Your task to perform on an android device: Go to Google maps Image 0: 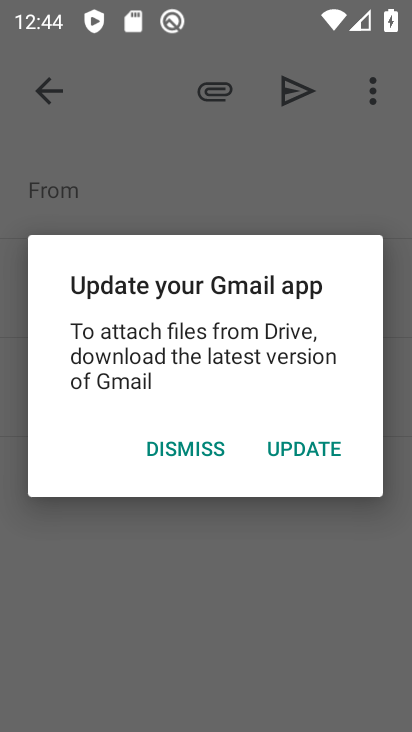
Step 0: press home button
Your task to perform on an android device: Go to Google maps Image 1: 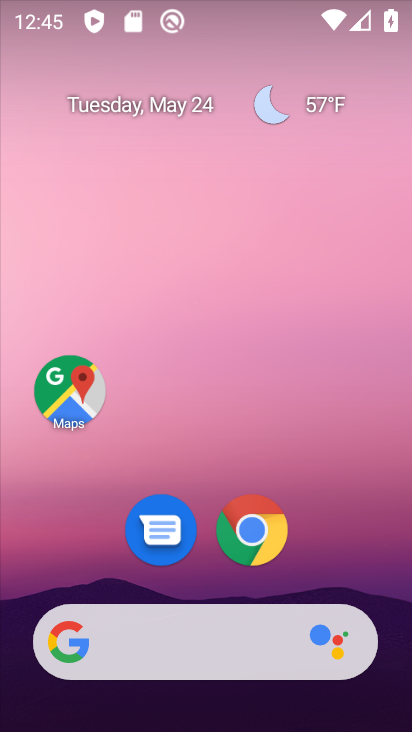
Step 1: click (76, 408)
Your task to perform on an android device: Go to Google maps Image 2: 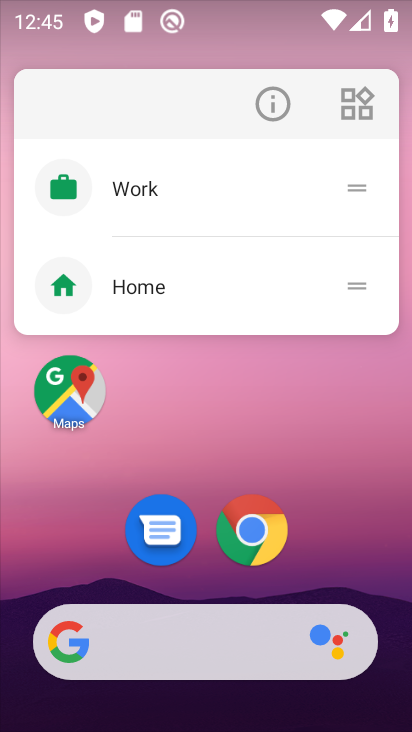
Step 2: click (78, 394)
Your task to perform on an android device: Go to Google maps Image 3: 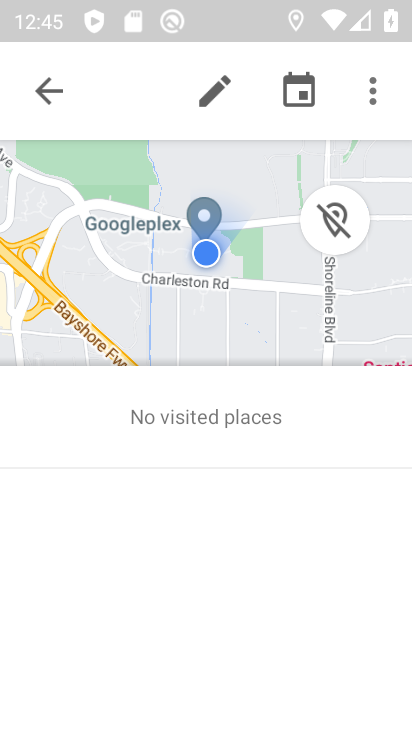
Step 3: press back button
Your task to perform on an android device: Go to Google maps Image 4: 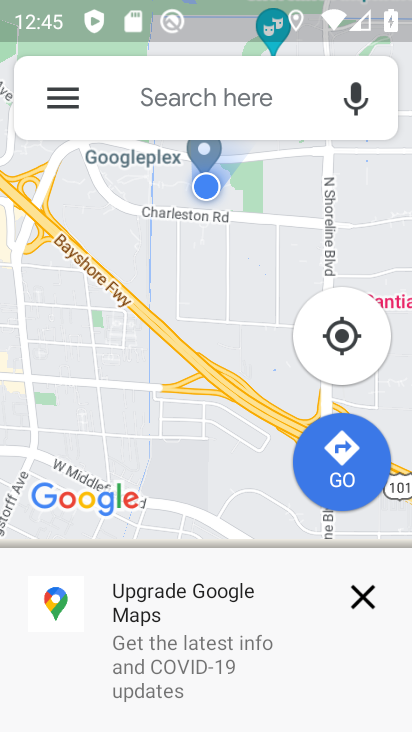
Step 4: click (358, 606)
Your task to perform on an android device: Go to Google maps Image 5: 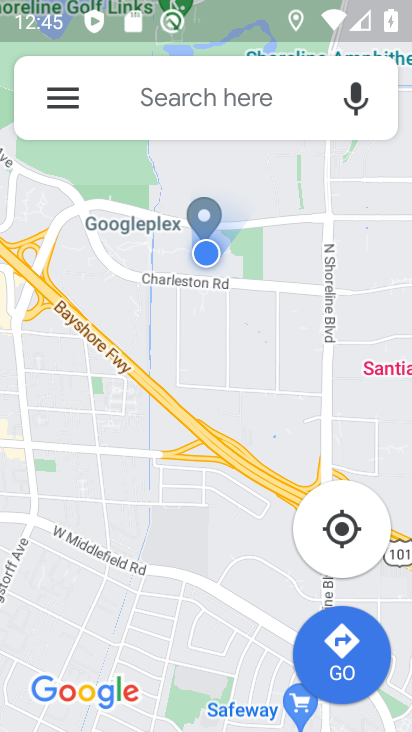
Step 5: task complete